Your task to perform on an android device: Show me productivity apps on the Play Store Image 0: 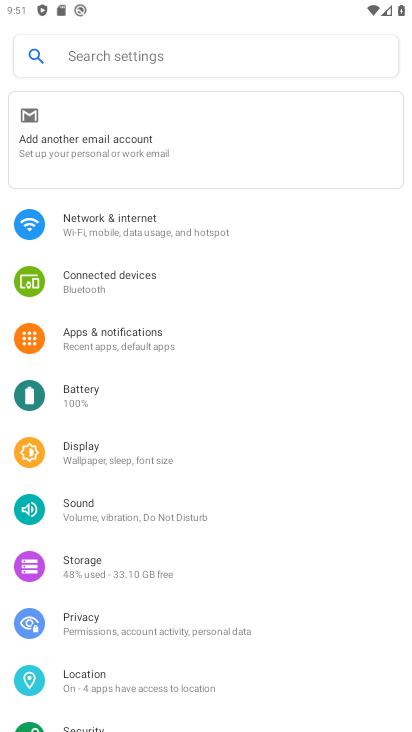
Step 0: press home button
Your task to perform on an android device: Show me productivity apps on the Play Store Image 1: 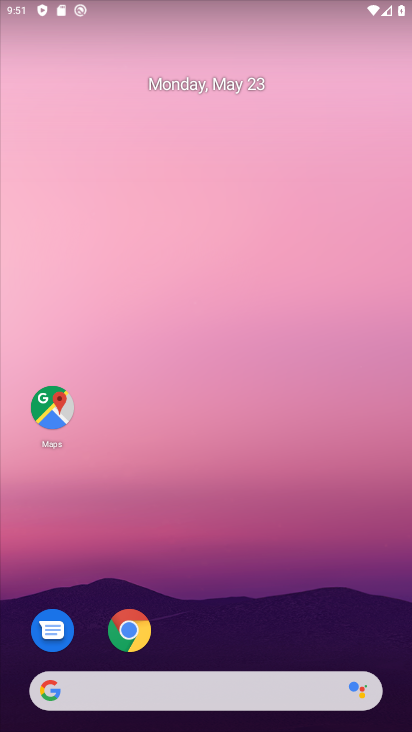
Step 1: drag from (269, 630) to (223, 17)
Your task to perform on an android device: Show me productivity apps on the Play Store Image 2: 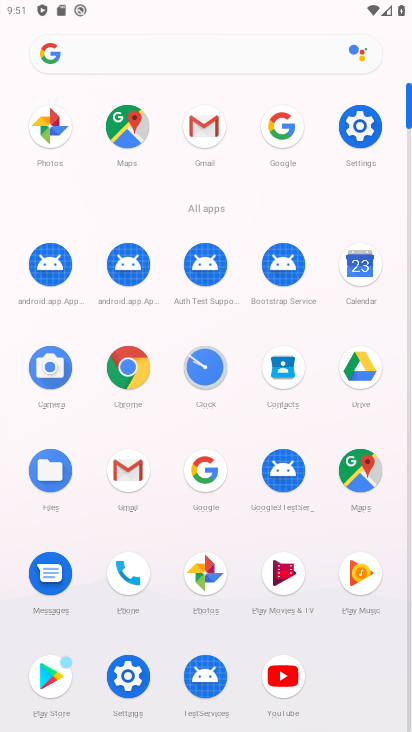
Step 2: click (47, 677)
Your task to perform on an android device: Show me productivity apps on the Play Store Image 3: 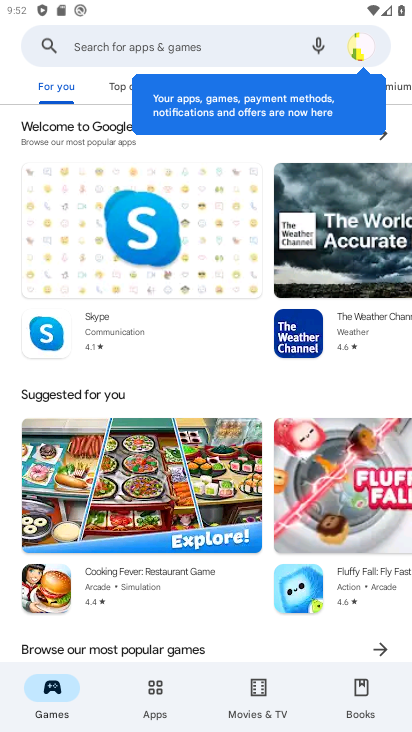
Step 3: click (157, 710)
Your task to perform on an android device: Show me productivity apps on the Play Store Image 4: 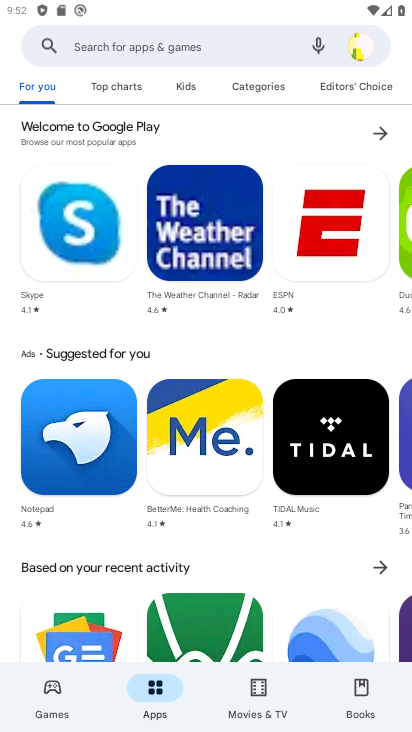
Step 4: click (251, 86)
Your task to perform on an android device: Show me productivity apps on the Play Store Image 5: 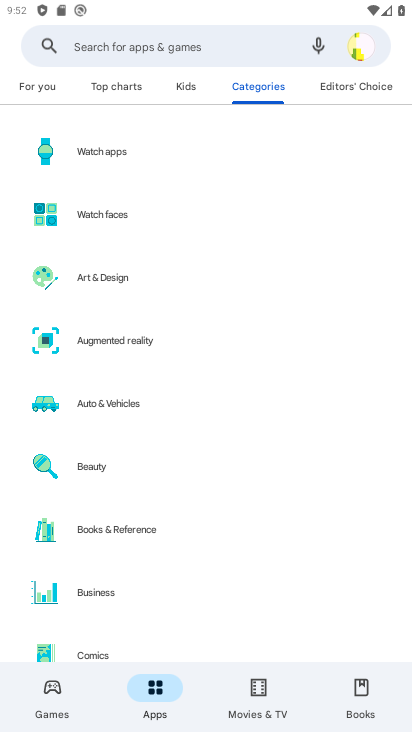
Step 5: drag from (135, 568) to (183, 137)
Your task to perform on an android device: Show me productivity apps on the Play Store Image 6: 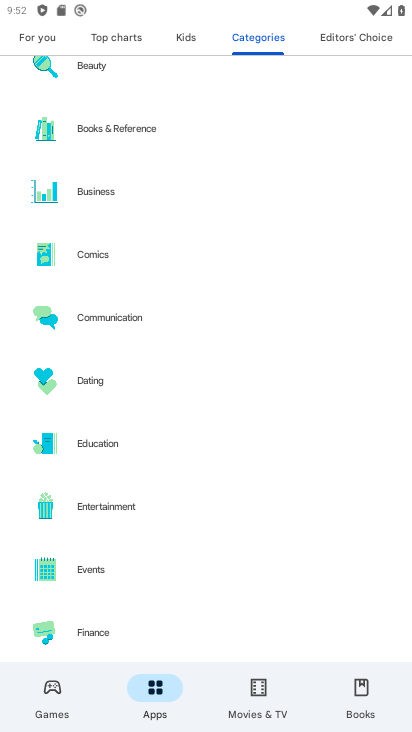
Step 6: drag from (175, 494) to (192, 121)
Your task to perform on an android device: Show me productivity apps on the Play Store Image 7: 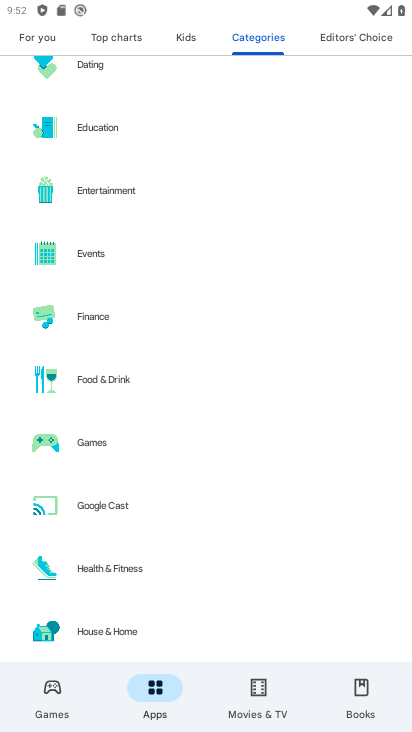
Step 7: drag from (194, 510) to (184, 162)
Your task to perform on an android device: Show me productivity apps on the Play Store Image 8: 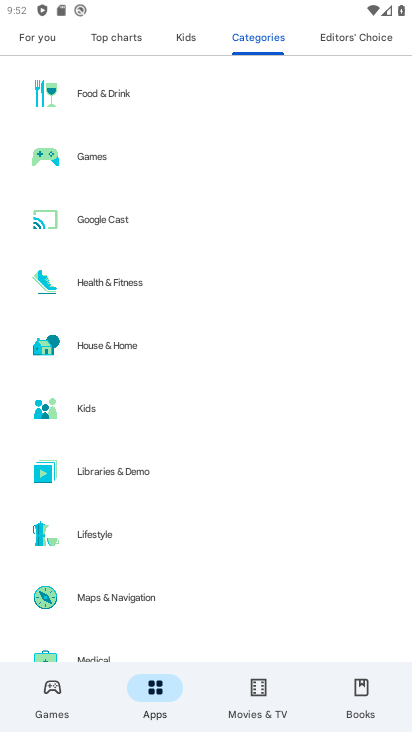
Step 8: drag from (177, 557) to (174, 136)
Your task to perform on an android device: Show me productivity apps on the Play Store Image 9: 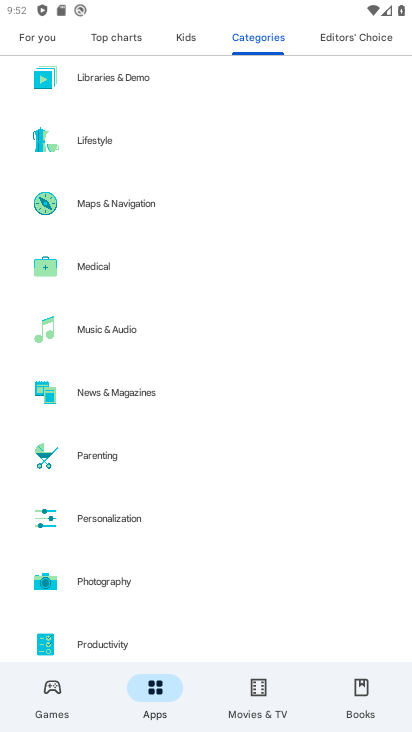
Step 9: drag from (164, 543) to (167, 284)
Your task to perform on an android device: Show me productivity apps on the Play Store Image 10: 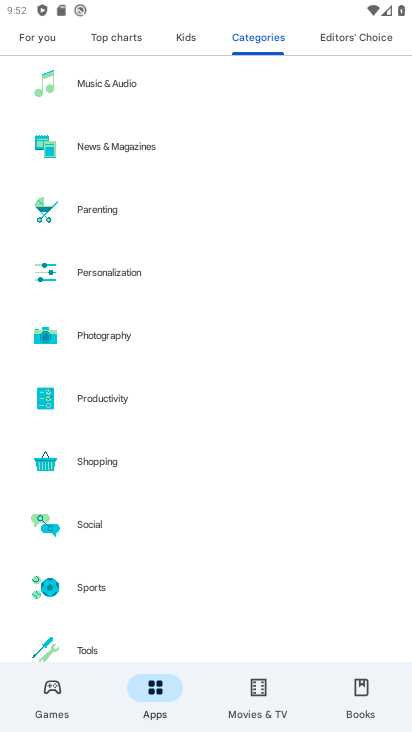
Step 10: click (100, 396)
Your task to perform on an android device: Show me productivity apps on the Play Store Image 11: 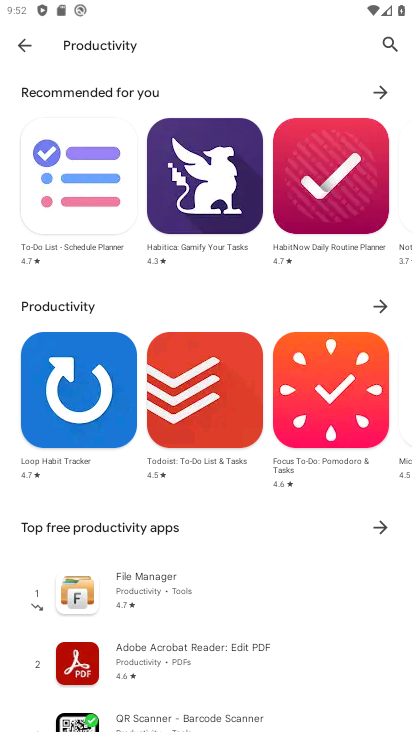
Step 11: task complete